Your task to perform on an android device: turn off notifications in google photos Image 0: 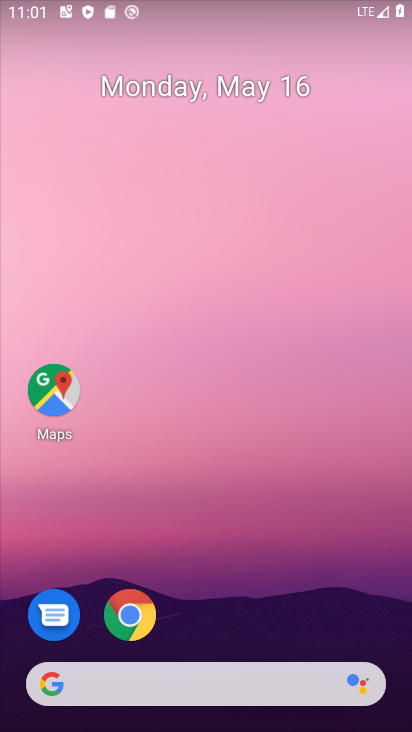
Step 0: drag from (219, 418) to (279, 202)
Your task to perform on an android device: turn off notifications in google photos Image 1: 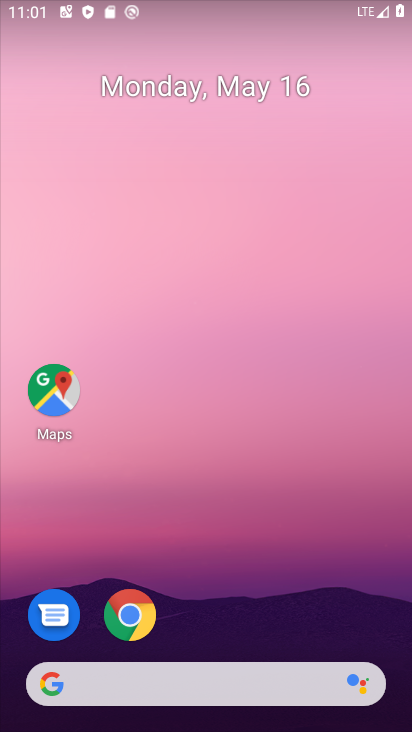
Step 1: drag from (226, 645) to (268, 261)
Your task to perform on an android device: turn off notifications in google photos Image 2: 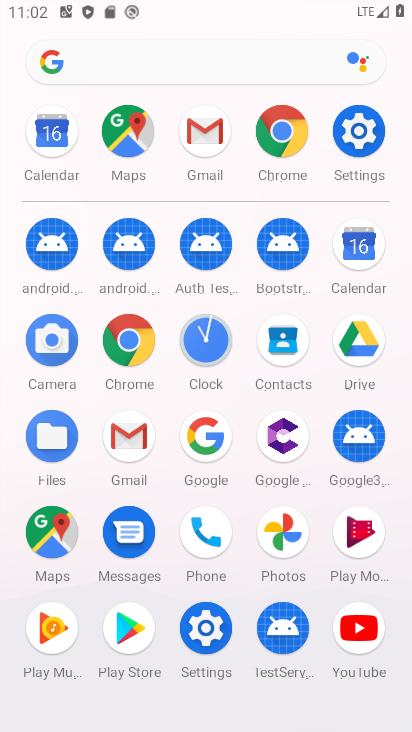
Step 2: click (303, 537)
Your task to perform on an android device: turn off notifications in google photos Image 3: 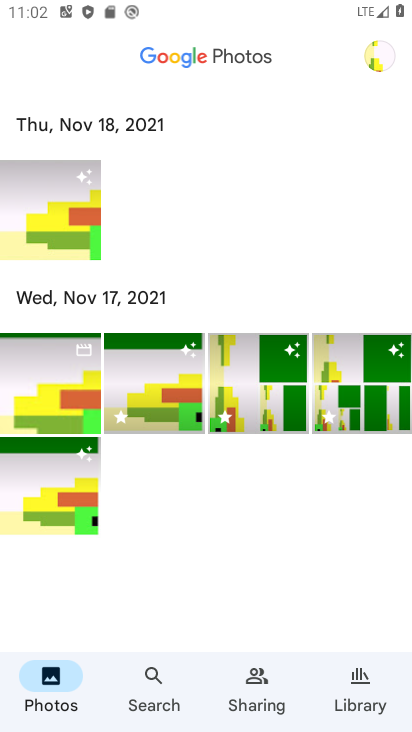
Step 3: click (374, 56)
Your task to perform on an android device: turn off notifications in google photos Image 4: 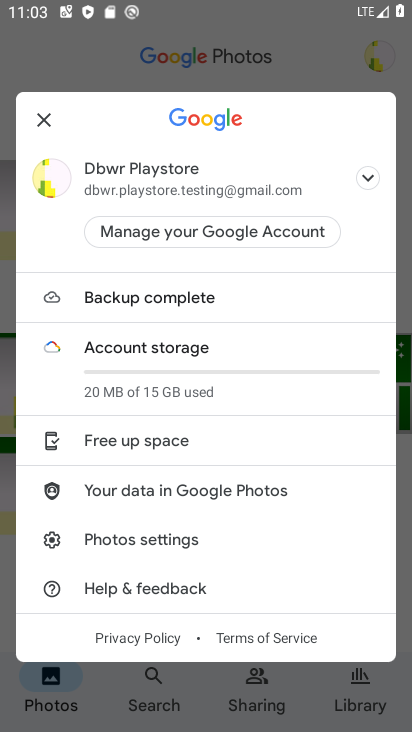
Step 4: click (220, 547)
Your task to perform on an android device: turn off notifications in google photos Image 5: 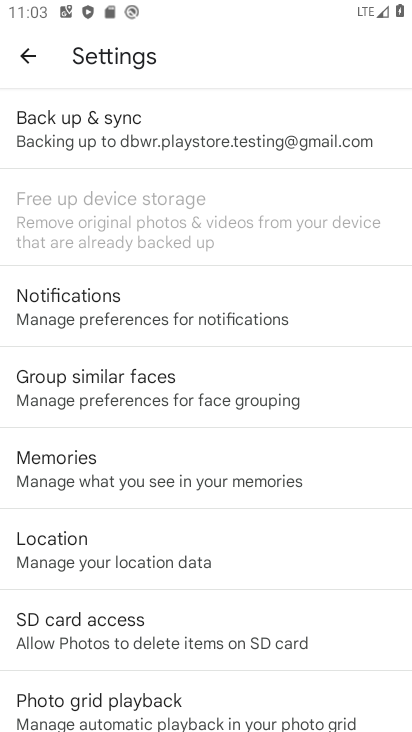
Step 5: click (216, 327)
Your task to perform on an android device: turn off notifications in google photos Image 6: 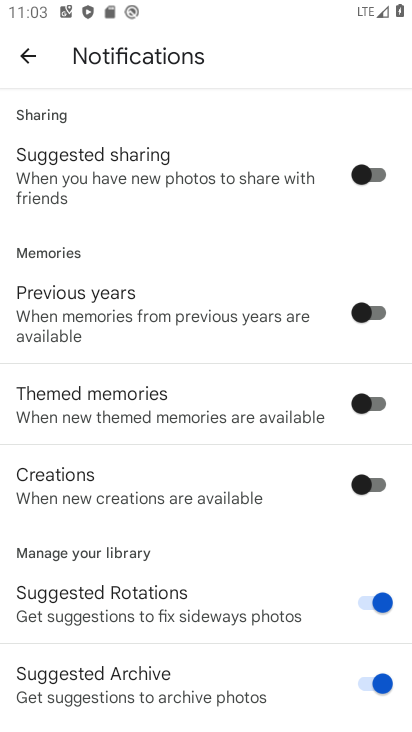
Step 6: task complete